Your task to perform on an android device: clear history in the chrome app Image 0: 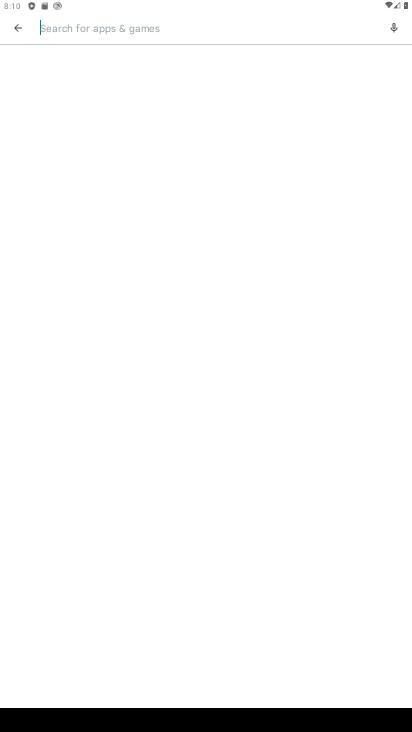
Step 0: press home button
Your task to perform on an android device: clear history in the chrome app Image 1: 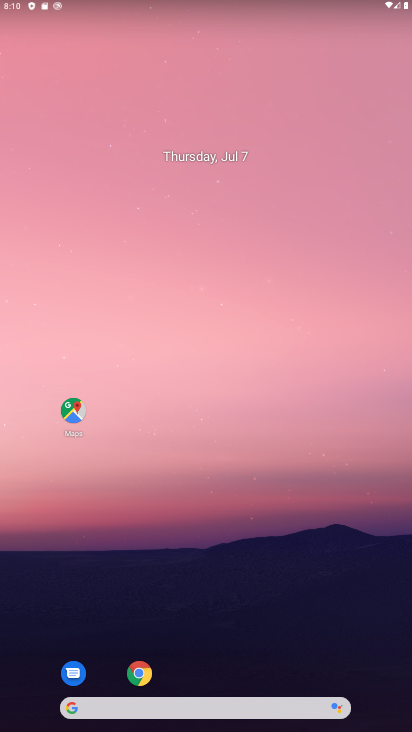
Step 1: drag from (184, 687) to (149, 11)
Your task to perform on an android device: clear history in the chrome app Image 2: 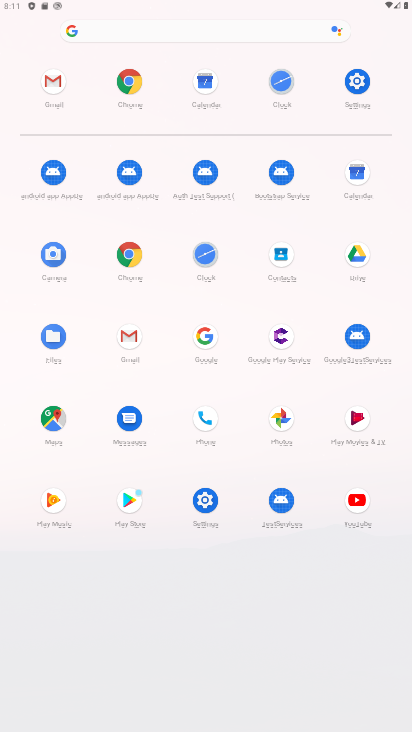
Step 2: click (123, 267)
Your task to perform on an android device: clear history in the chrome app Image 3: 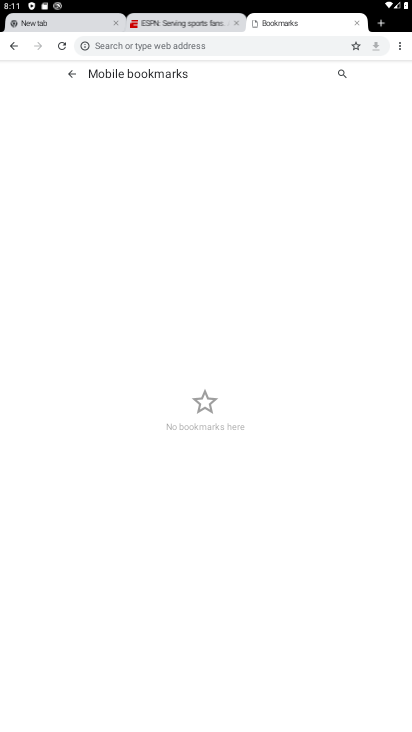
Step 3: click (401, 42)
Your task to perform on an android device: clear history in the chrome app Image 4: 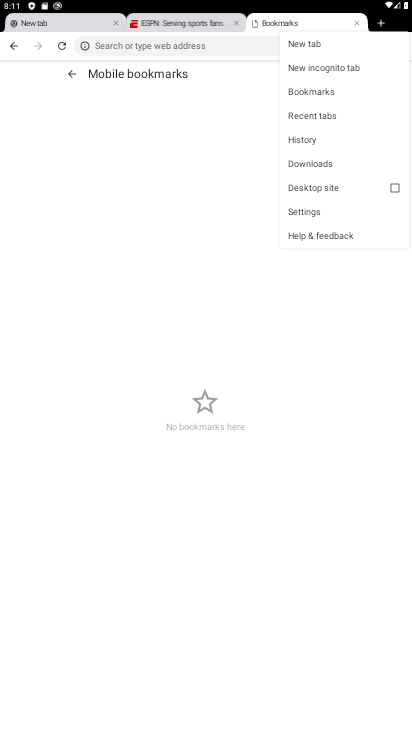
Step 4: click (307, 136)
Your task to perform on an android device: clear history in the chrome app Image 5: 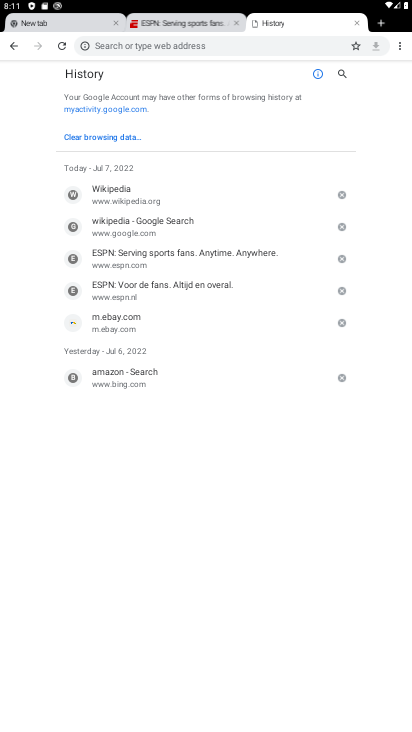
Step 5: click (95, 138)
Your task to perform on an android device: clear history in the chrome app Image 6: 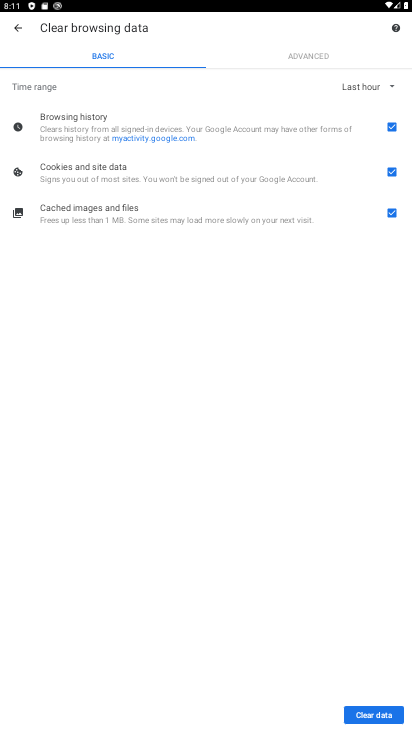
Step 6: click (365, 718)
Your task to perform on an android device: clear history in the chrome app Image 7: 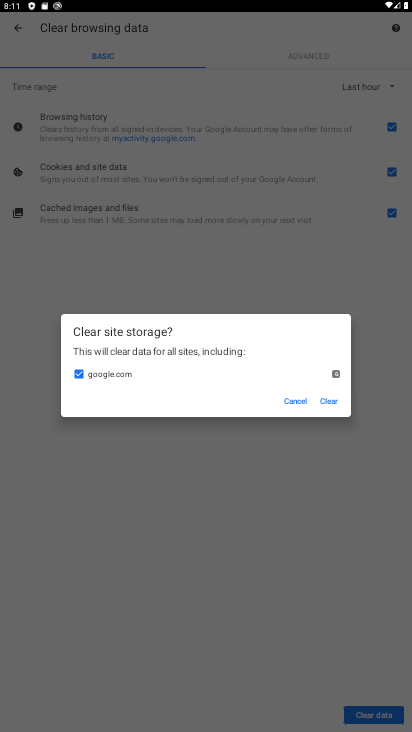
Step 7: click (327, 399)
Your task to perform on an android device: clear history in the chrome app Image 8: 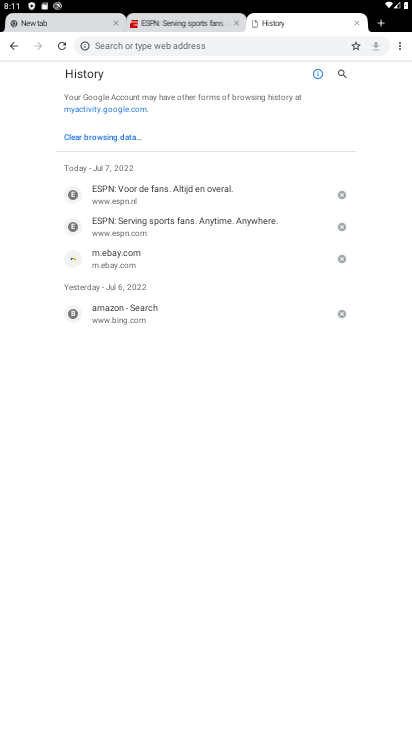
Step 8: task complete